Your task to perform on an android device: Open Google Chrome Image 0: 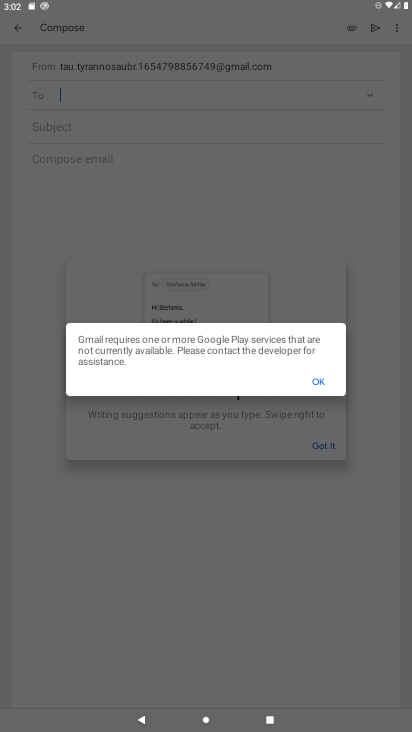
Step 0: click (309, 374)
Your task to perform on an android device: Open Google Chrome Image 1: 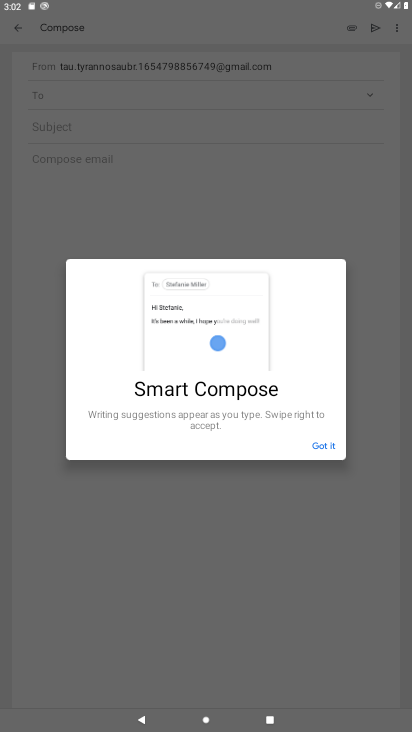
Step 1: click (311, 443)
Your task to perform on an android device: Open Google Chrome Image 2: 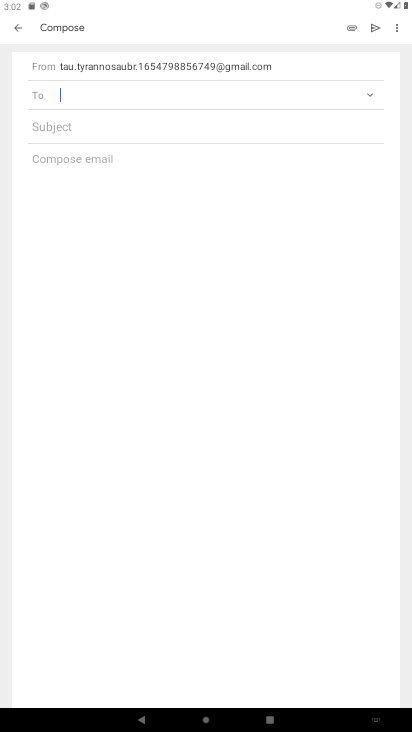
Step 2: press home button
Your task to perform on an android device: Open Google Chrome Image 3: 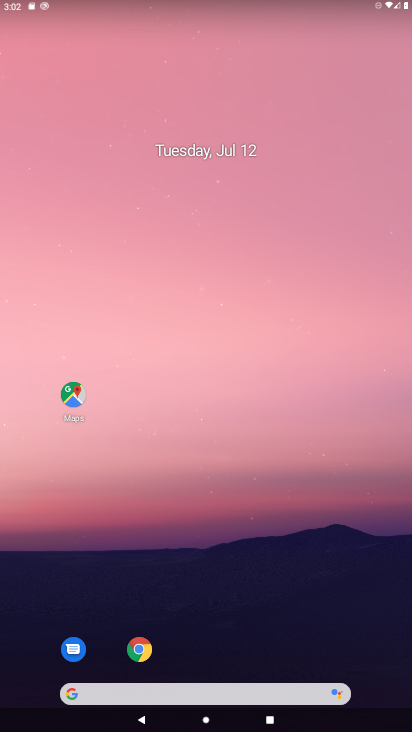
Step 3: click (131, 665)
Your task to perform on an android device: Open Google Chrome Image 4: 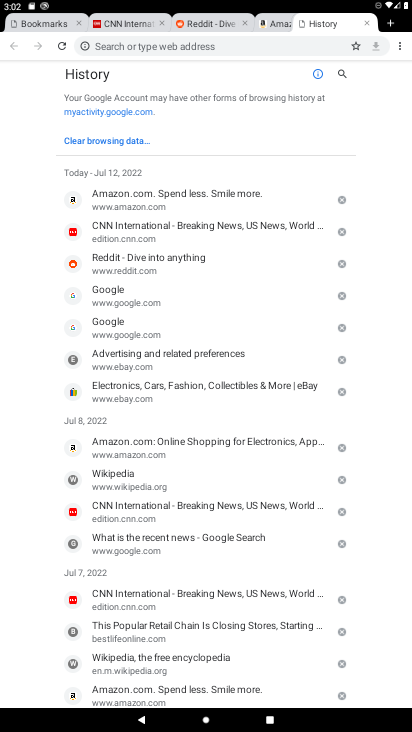
Step 4: task complete